Your task to perform on an android device: check google app version Image 0: 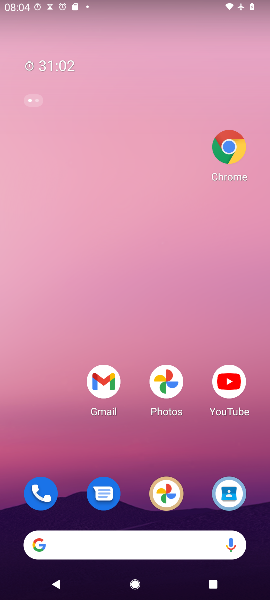
Step 0: press home button
Your task to perform on an android device: check google app version Image 1: 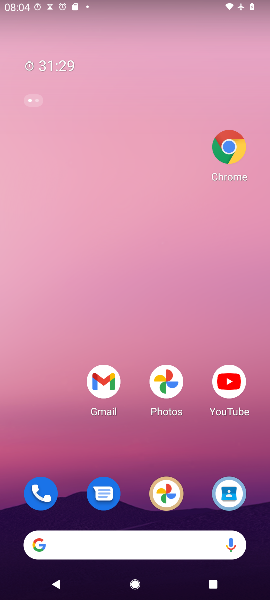
Step 1: drag from (138, 497) to (153, 87)
Your task to perform on an android device: check google app version Image 2: 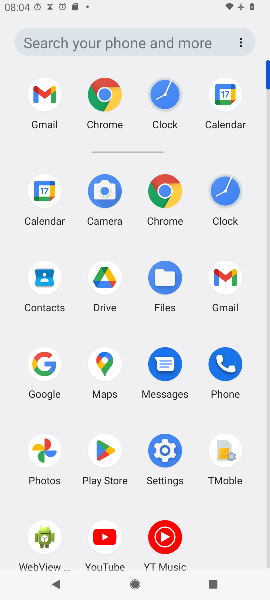
Step 2: click (45, 367)
Your task to perform on an android device: check google app version Image 3: 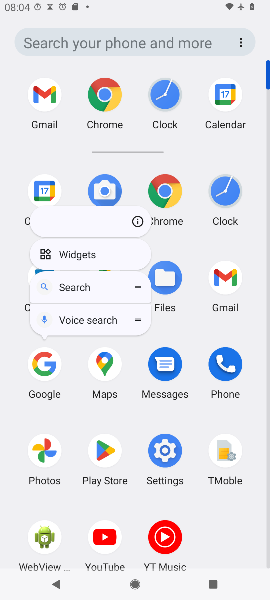
Step 3: click (138, 221)
Your task to perform on an android device: check google app version Image 4: 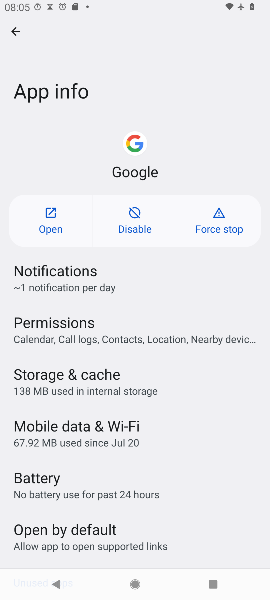
Step 4: task complete